Your task to perform on an android device: toggle pop-ups in chrome Image 0: 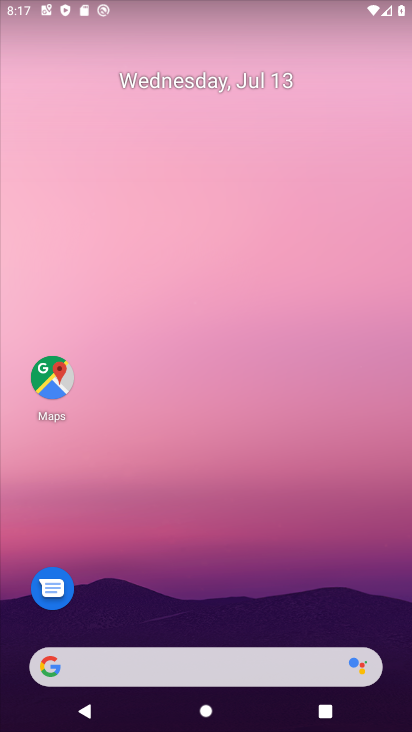
Step 0: drag from (260, 706) to (304, 34)
Your task to perform on an android device: toggle pop-ups in chrome Image 1: 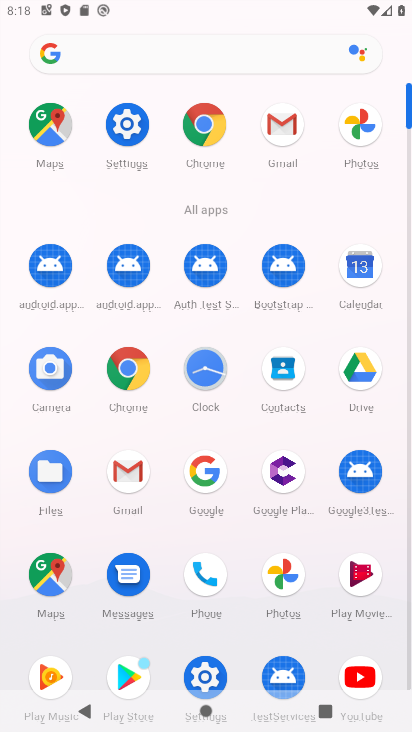
Step 1: click (202, 129)
Your task to perform on an android device: toggle pop-ups in chrome Image 2: 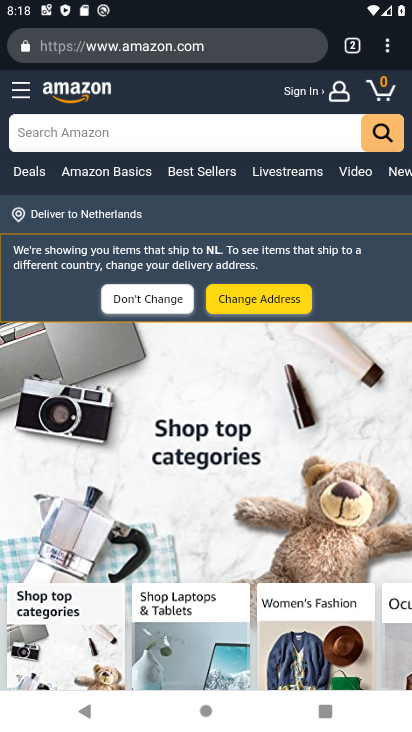
Step 2: click (387, 42)
Your task to perform on an android device: toggle pop-ups in chrome Image 3: 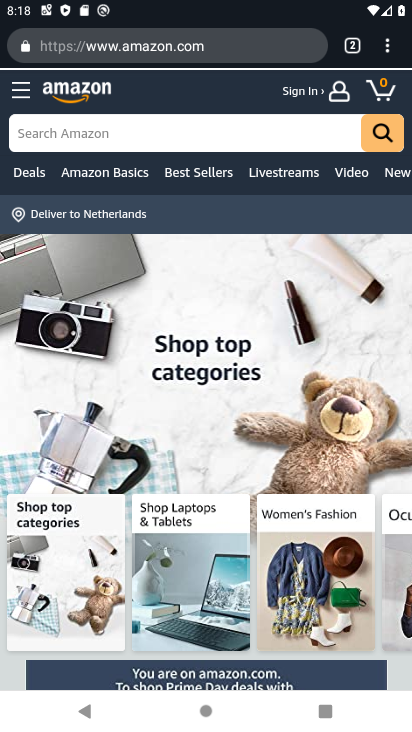
Step 3: click (387, 42)
Your task to perform on an android device: toggle pop-ups in chrome Image 4: 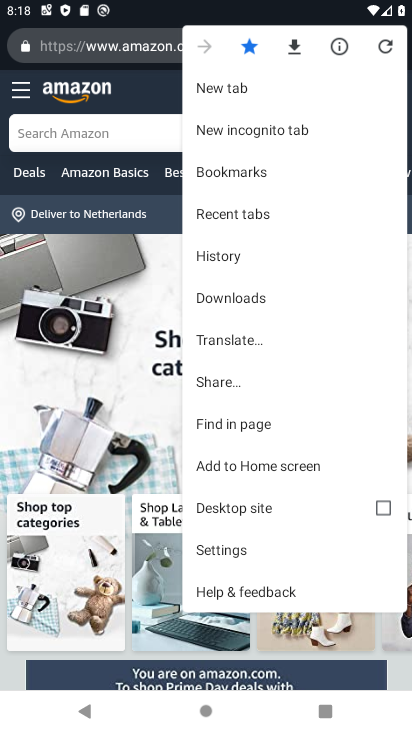
Step 4: click (246, 549)
Your task to perform on an android device: toggle pop-ups in chrome Image 5: 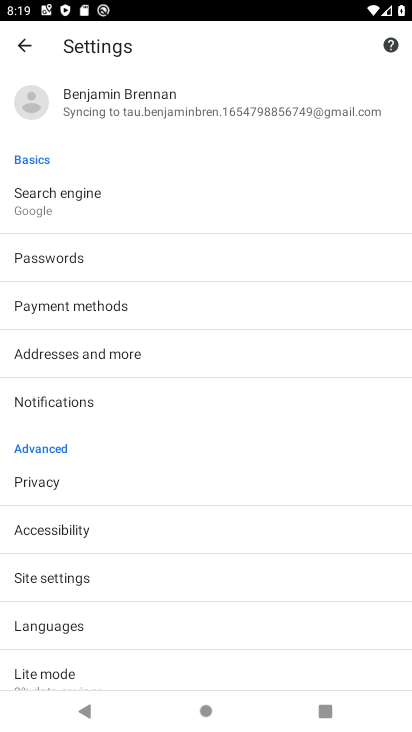
Step 5: click (115, 575)
Your task to perform on an android device: toggle pop-ups in chrome Image 6: 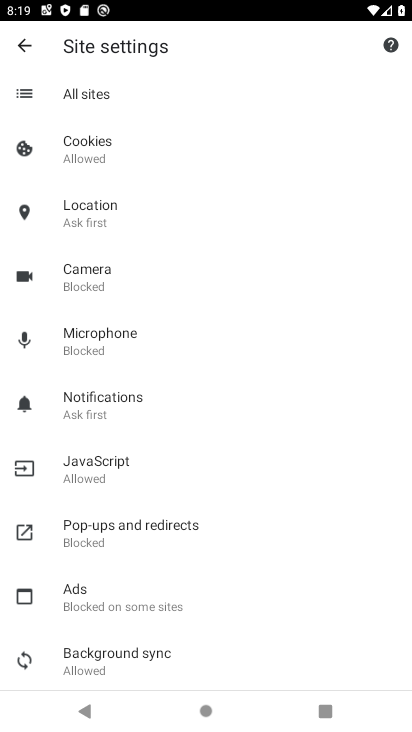
Step 6: click (185, 534)
Your task to perform on an android device: toggle pop-ups in chrome Image 7: 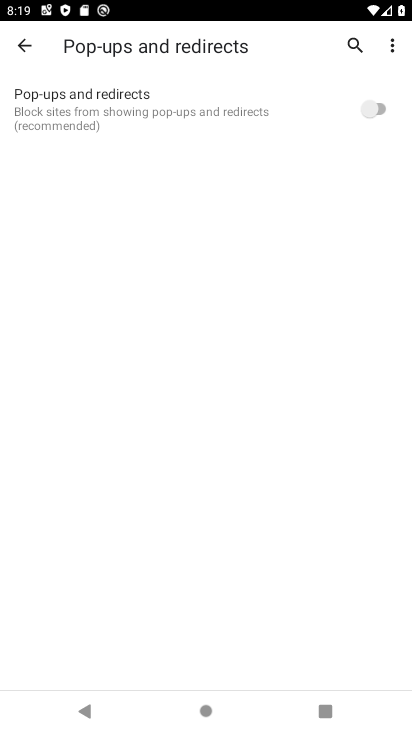
Step 7: click (375, 106)
Your task to perform on an android device: toggle pop-ups in chrome Image 8: 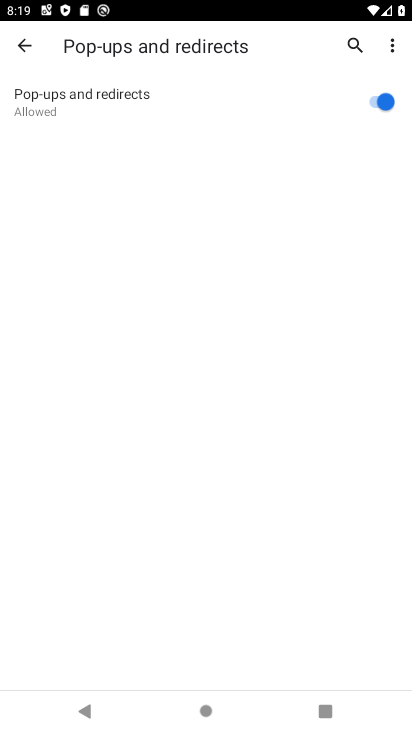
Step 8: task complete